Your task to perform on an android device: turn on notifications settings in the gmail app Image 0: 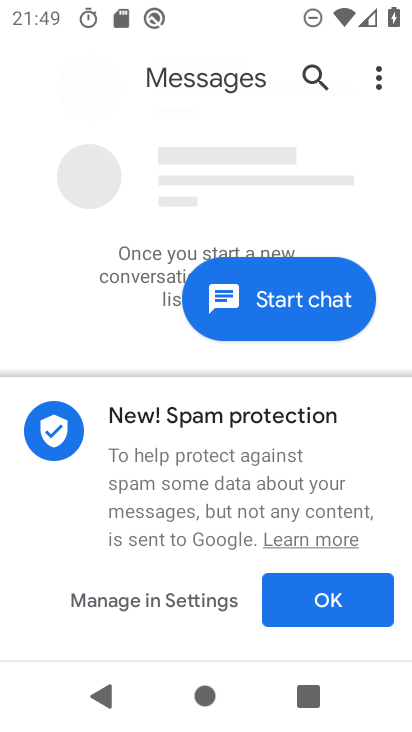
Step 0: press home button
Your task to perform on an android device: turn on notifications settings in the gmail app Image 1: 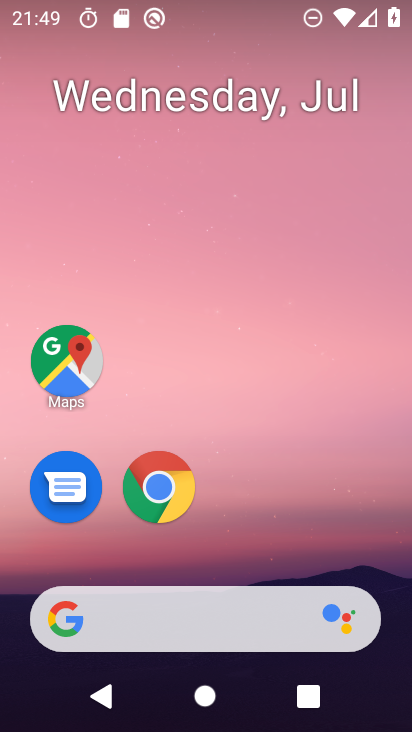
Step 1: drag from (368, 542) to (357, 157)
Your task to perform on an android device: turn on notifications settings in the gmail app Image 2: 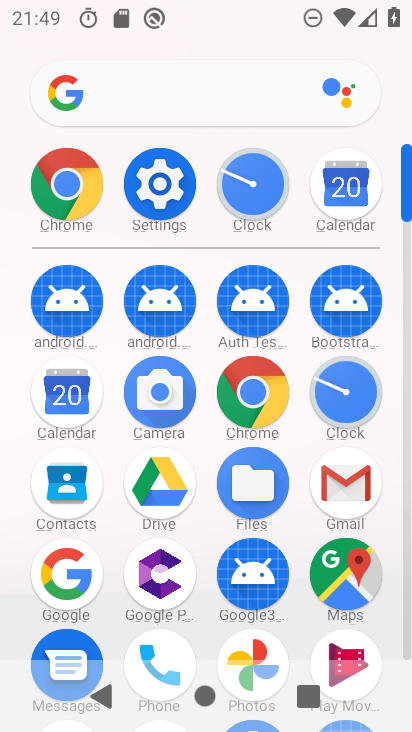
Step 2: click (351, 484)
Your task to perform on an android device: turn on notifications settings in the gmail app Image 3: 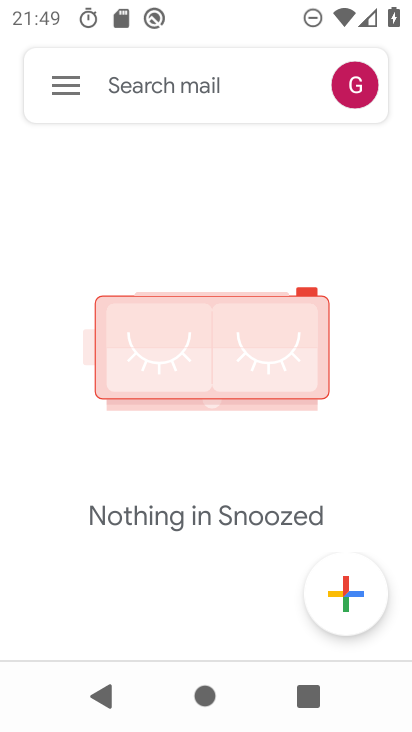
Step 3: click (70, 87)
Your task to perform on an android device: turn on notifications settings in the gmail app Image 4: 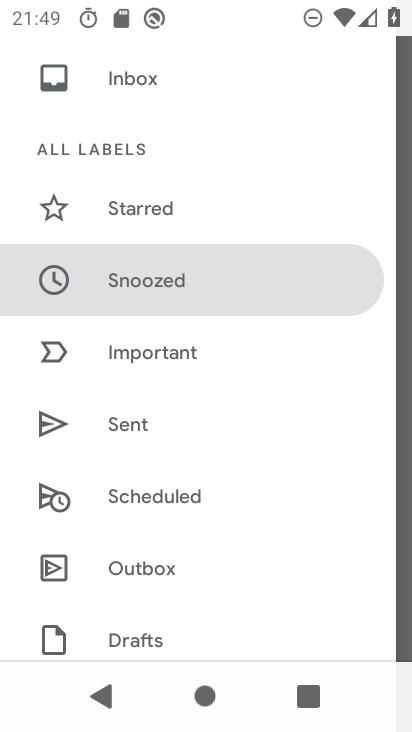
Step 4: drag from (287, 458) to (296, 364)
Your task to perform on an android device: turn on notifications settings in the gmail app Image 5: 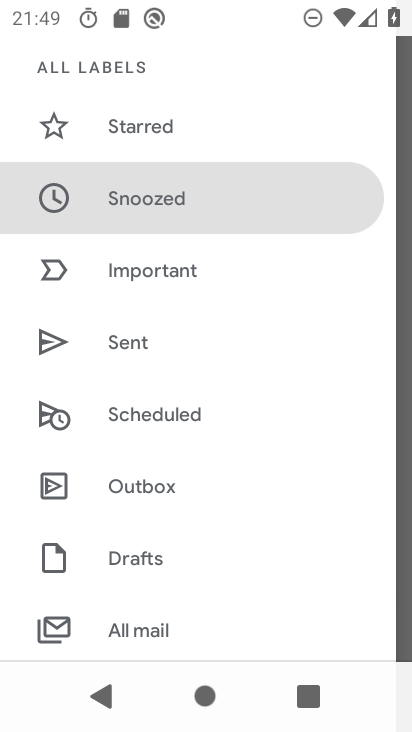
Step 5: drag from (283, 487) to (283, 399)
Your task to perform on an android device: turn on notifications settings in the gmail app Image 6: 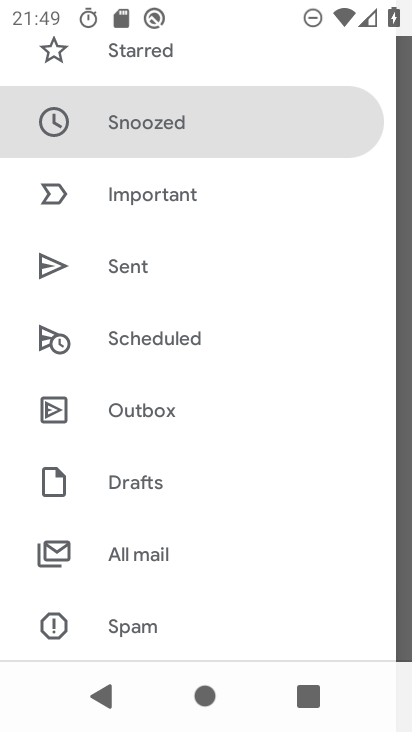
Step 6: drag from (288, 487) to (286, 394)
Your task to perform on an android device: turn on notifications settings in the gmail app Image 7: 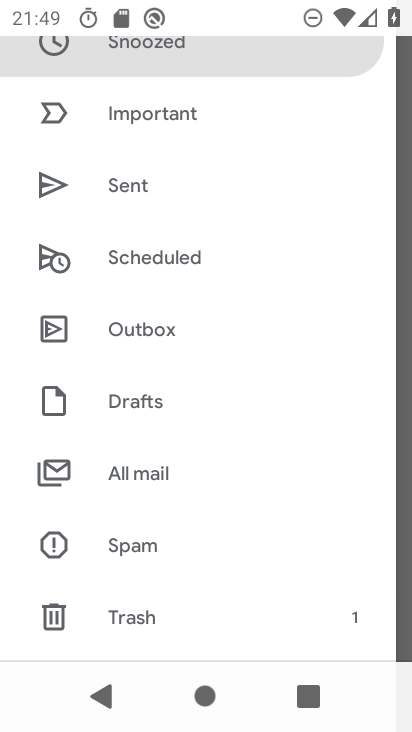
Step 7: drag from (283, 511) to (296, 424)
Your task to perform on an android device: turn on notifications settings in the gmail app Image 8: 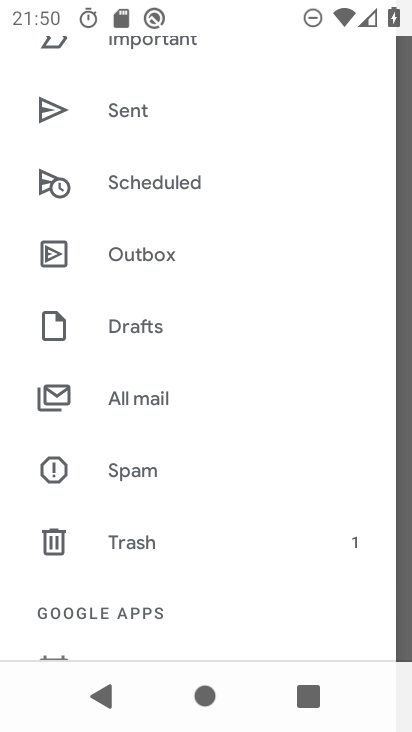
Step 8: drag from (264, 550) to (268, 427)
Your task to perform on an android device: turn on notifications settings in the gmail app Image 9: 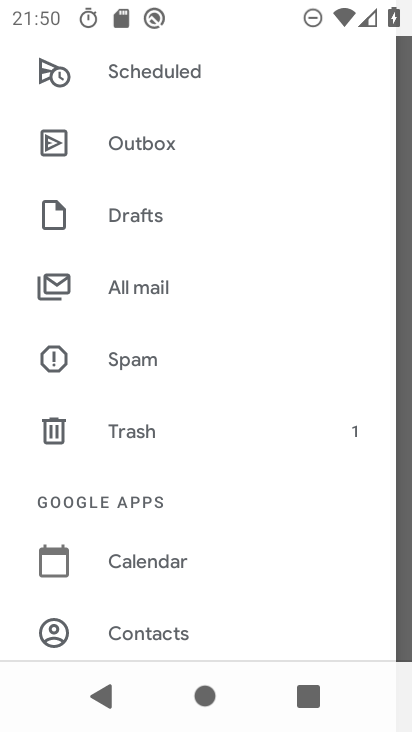
Step 9: drag from (275, 552) to (274, 370)
Your task to perform on an android device: turn on notifications settings in the gmail app Image 10: 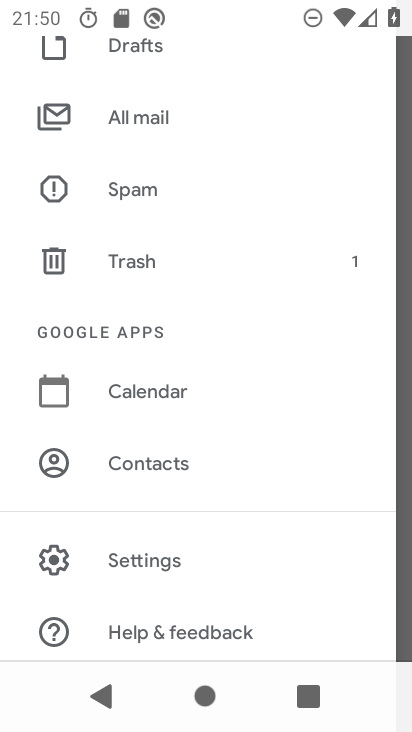
Step 10: click (253, 565)
Your task to perform on an android device: turn on notifications settings in the gmail app Image 11: 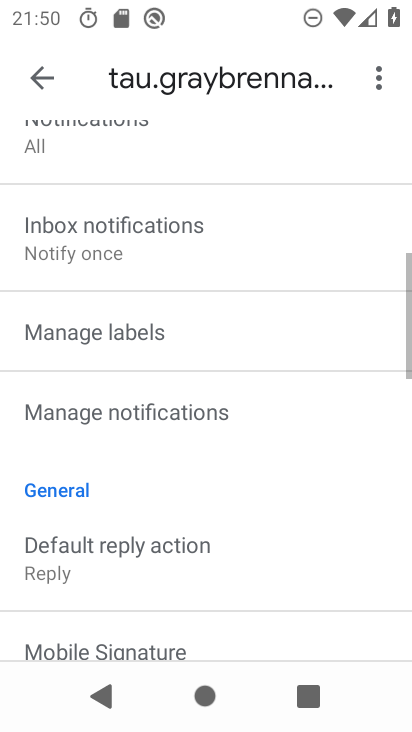
Step 11: drag from (253, 565) to (254, 451)
Your task to perform on an android device: turn on notifications settings in the gmail app Image 12: 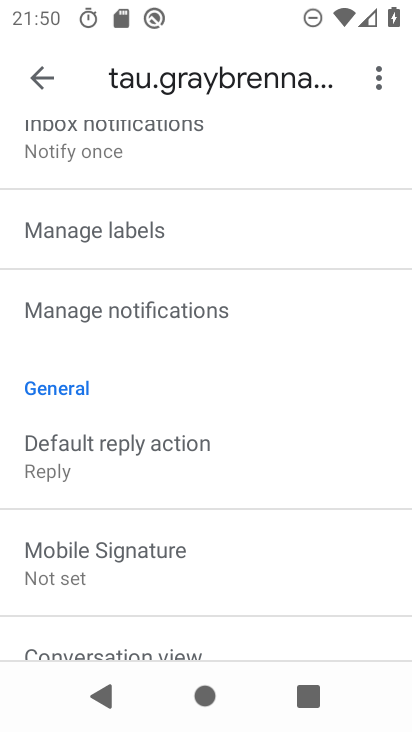
Step 12: drag from (293, 524) to (301, 371)
Your task to perform on an android device: turn on notifications settings in the gmail app Image 13: 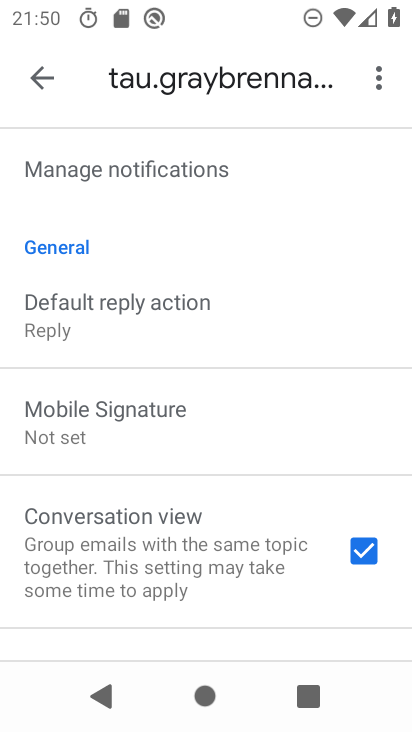
Step 13: drag from (261, 554) to (264, 427)
Your task to perform on an android device: turn on notifications settings in the gmail app Image 14: 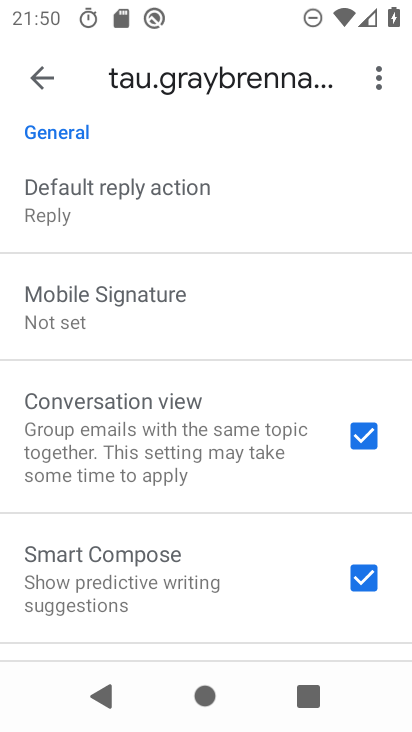
Step 14: drag from (281, 286) to (275, 397)
Your task to perform on an android device: turn on notifications settings in the gmail app Image 15: 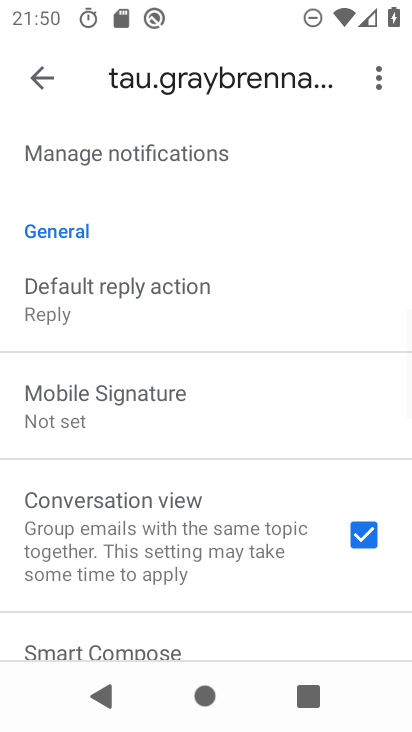
Step 15: drag from (278, 257) to (273, 388)
Your task to perform on an android device: turn on notifications settings in the gmail app Image 16: 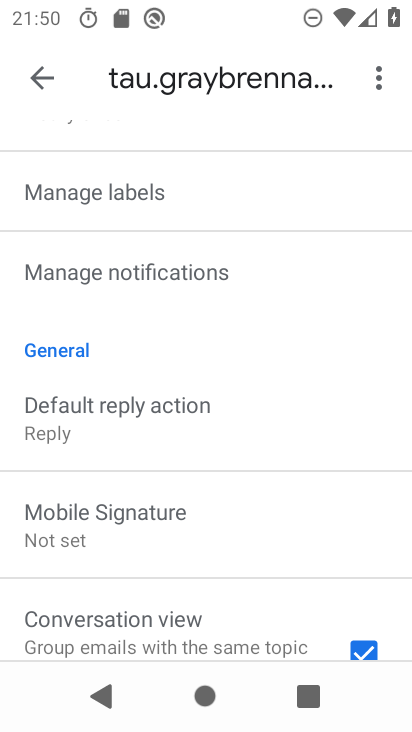
Step 16: drag from (284, 227) to (275, 396)
Your task to perform on an android device: turn on notifications settings in the gmail app Image 17: 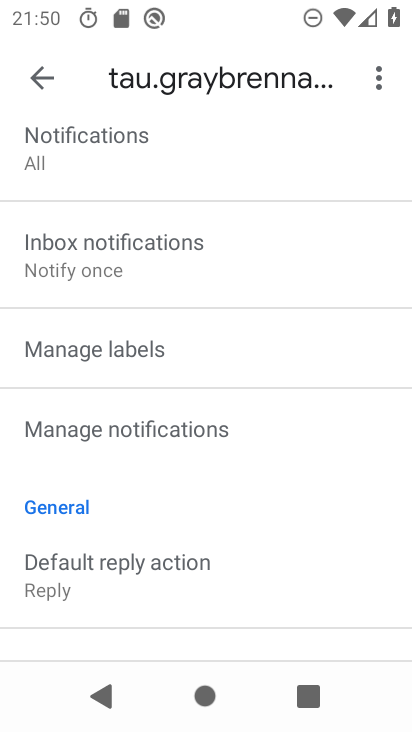
Step 17: drag from (293, 285) to (305, 397)
Your task to perform on an android device: turn on notifications settings in the gmail app Image 18: 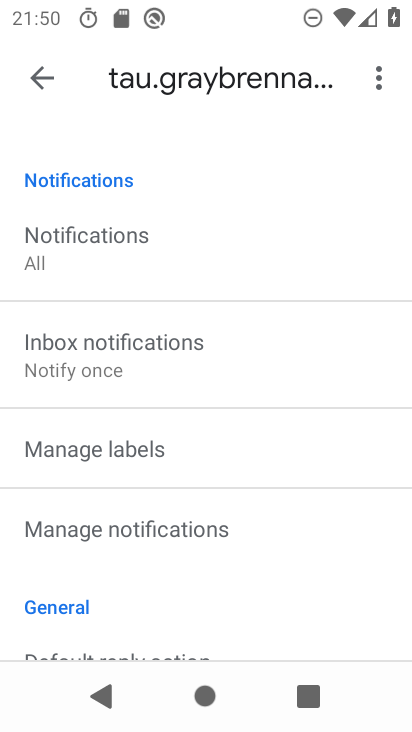
Step 18: click (221, 544)
Your task to perform on an android device: turn on notifications settings in the gmail app Image 19: 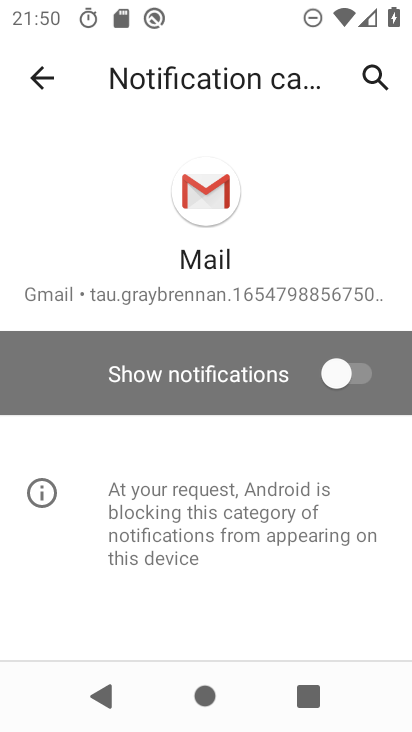
Step 19: click (346, 384)
Your task to perform on an android device: turn on notifications settings in the gmail app Image 20: 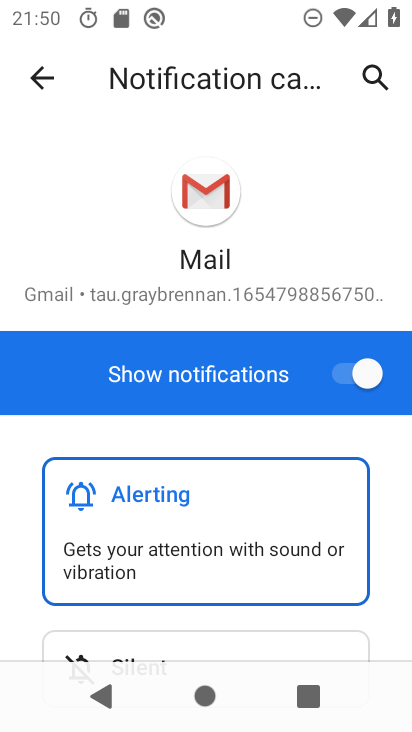
Step 20: task complete